Your task to perform on an android device: uninstall "Cash App" Image 0: 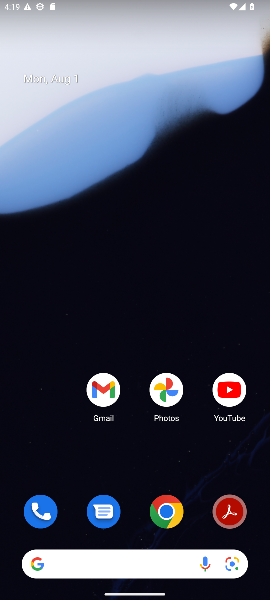
Step 0: drag from (128, 521) to (125, 95)
Your task to perform on an android device: uninstall "Cash App" Image 1: 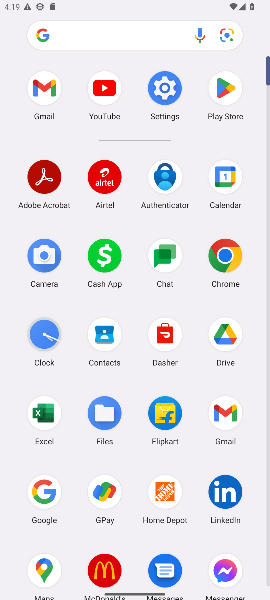
Step 1: click (228, 111)
Your task to perform on an android device: uninstall "Cash App" Image 2: 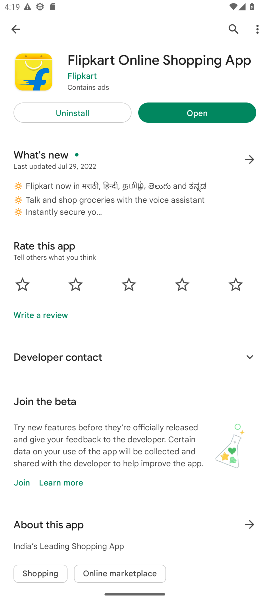
Step 2: click (10, 29)
Your task to perform on an android device: uninstall "Cash App" Image 3: 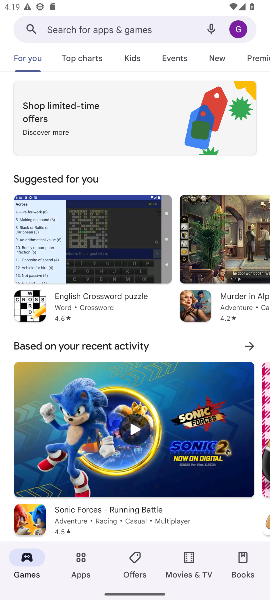
Step 3: click (71, 36)
Your task to perform on an android device: uninstall "Cash App" Image 4: 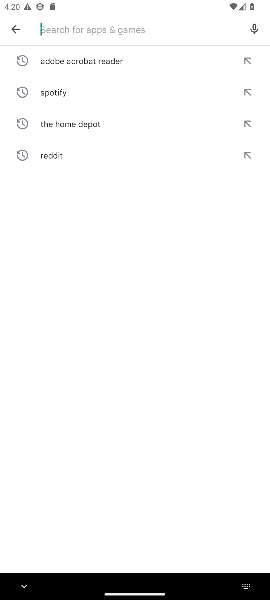
Step 4: type "cash app"
Your task to perform on an android device: uninstall "Cash App" Image 5: 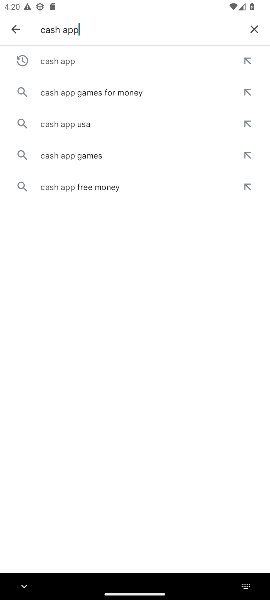
Step 5: click (65, 64)
Your task to perform on an android device: uninstall "Cash App" Image 6: 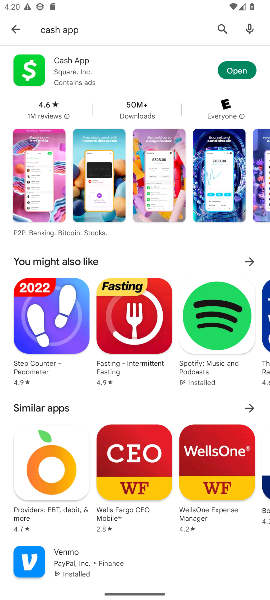
Step 6: click (67, 72)
Your task to perform on an android device: uninstall "Cash App" Image 7: 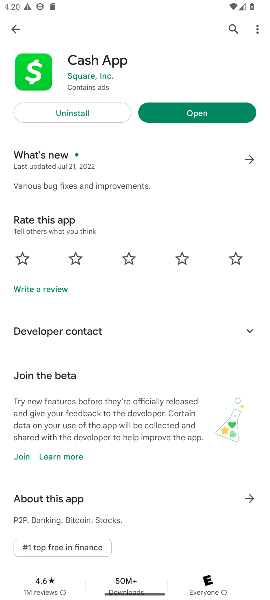
Step 7: click (56, 114)
Your task to perform on an android device: uninstall "Cash App" Image 8: 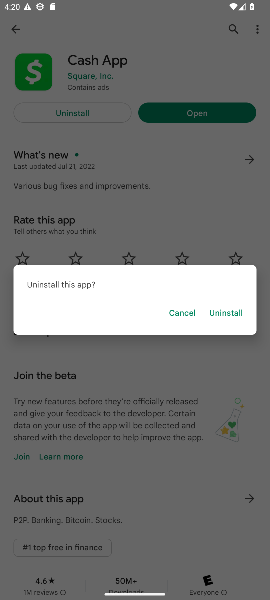
Step 8: click (234, 307)
Your task to perform on an android device: uninstall "Cash App" Image 9: 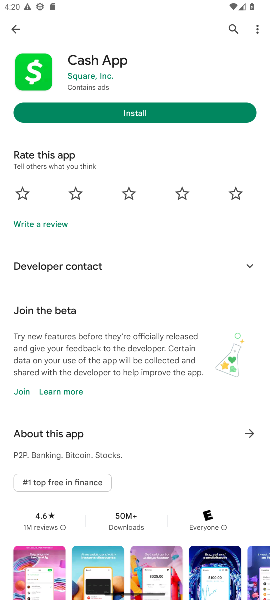
Step 9: task complete